Your task to perform on an android device: toggle improve location accuracy Image 0: 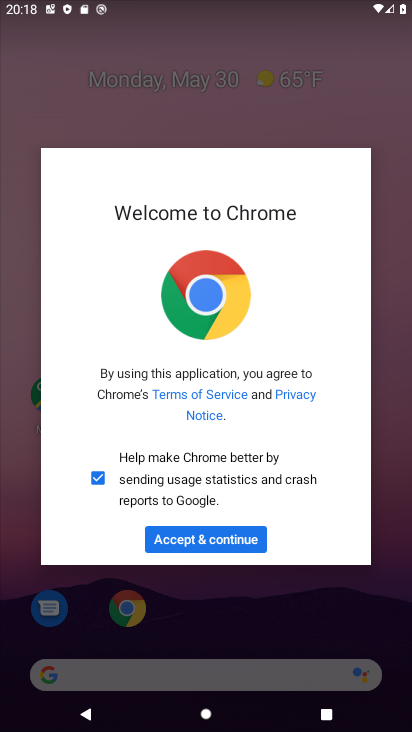
Step 0: press home button
Your task to perform on an android device: toggle improve location accuracy Image 1: 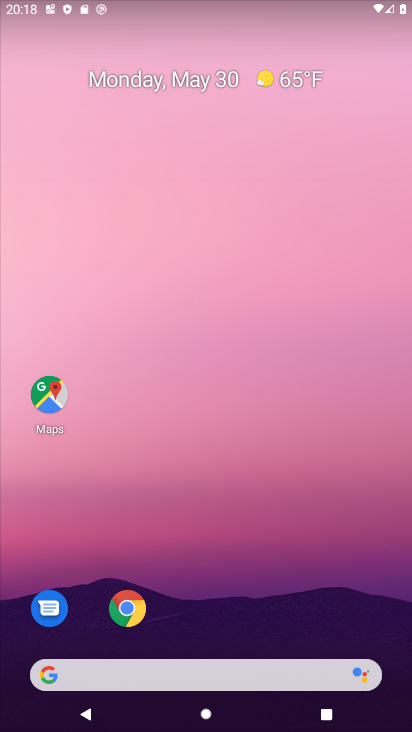
Step 1: drag from (207, 641) to (228, 176)
Your task to perform on an android device: toggle improve location accuracy Image 2: 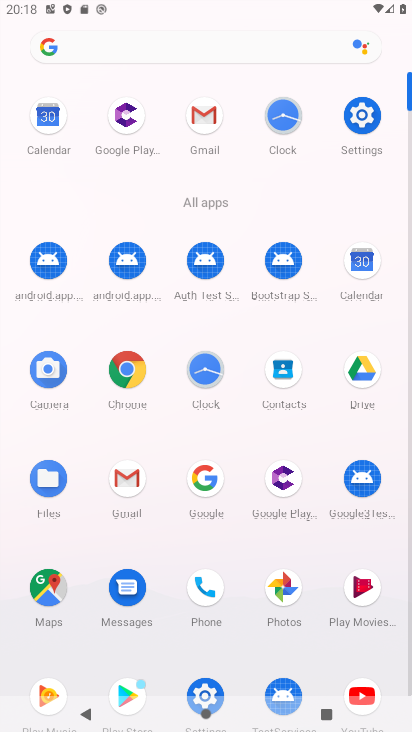
Step 2: click (351, 112)
Your task to perform on an android device: toggle improve location accuracy Image 3: 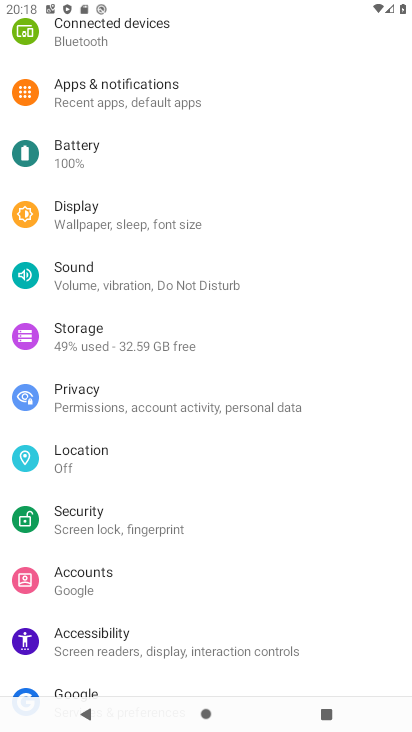
Step 3: click (114, 462)
Your task to perform on an android device: toggle improve location accuracy Image 4: 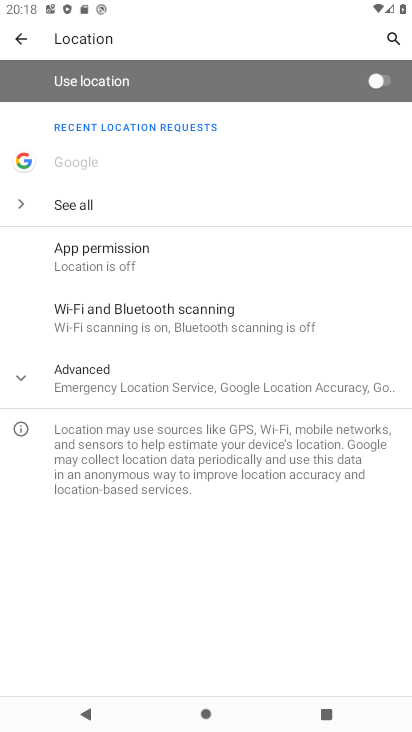
Step 4: click (117, 376)
Your task to perform on an android device: toggle improve location accuracy Image 5: 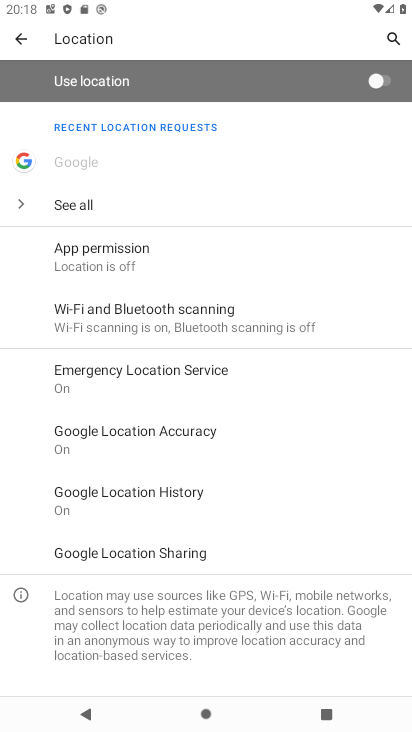
Step 5: click (167, 424)
Your task to perform on an android device: toggle improve location accuracy Image 6: 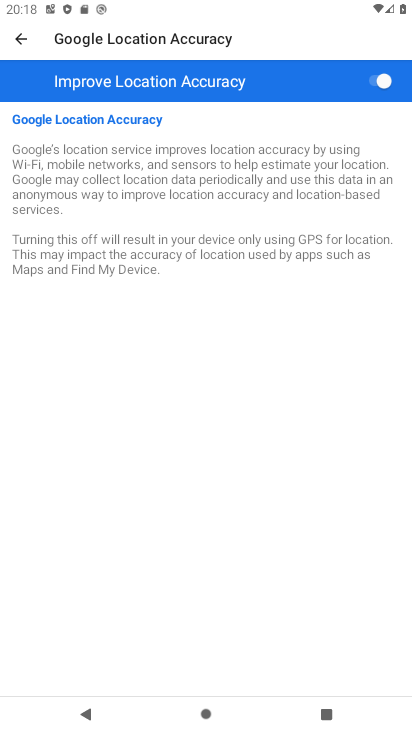
Step 6: click (374, 74)
Your task to perform on an android device: toggle improve location accuracy Image 7: 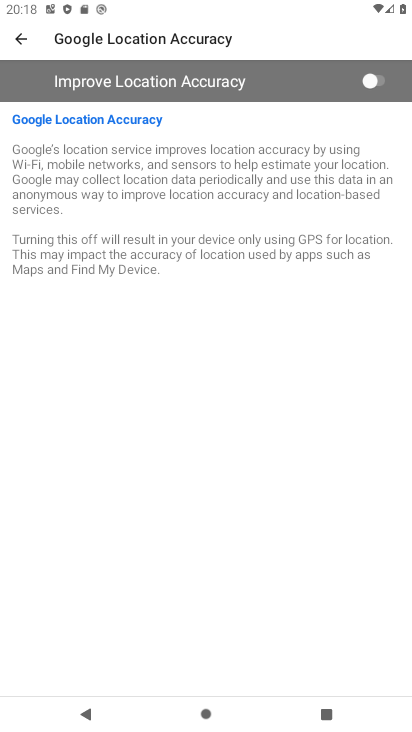
Step 7: task complete